Your task to perform on an android device: change the clock display to digital Image 0: 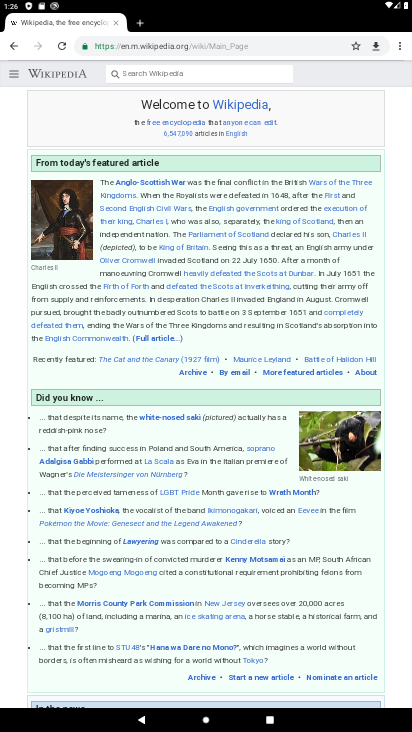
Step 0: press home button
Your task to perform on an android device: change the clock display to digital Image 1: 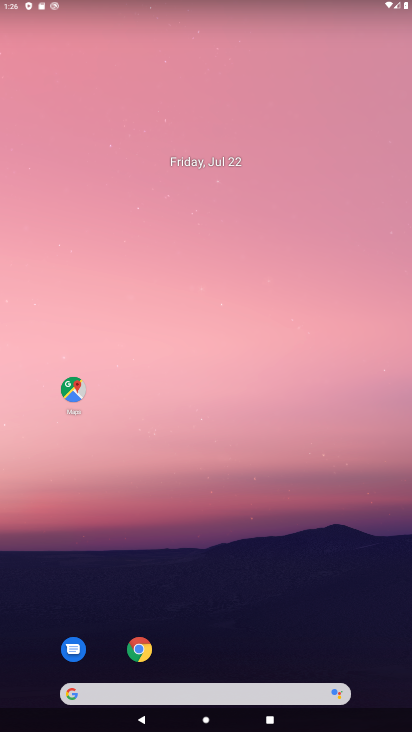
Step 1: drag from (266, 604) to (246, 174)
Your task to perform on an android device: change the clock display to digital Image 2: 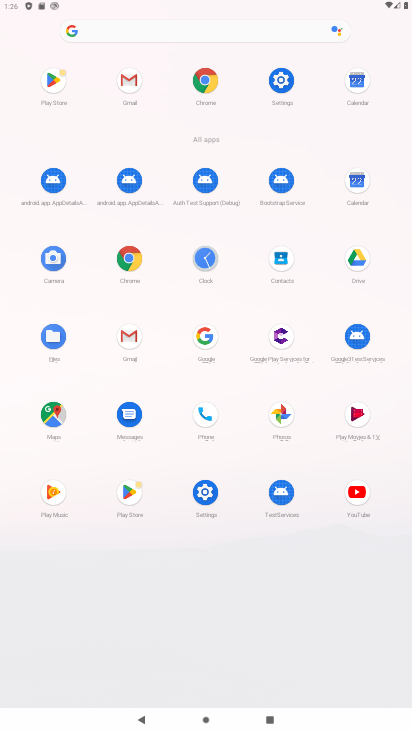
Step 2: click (205, 253)
Your task to perform on an android device: change the clock display to digital Image 3: 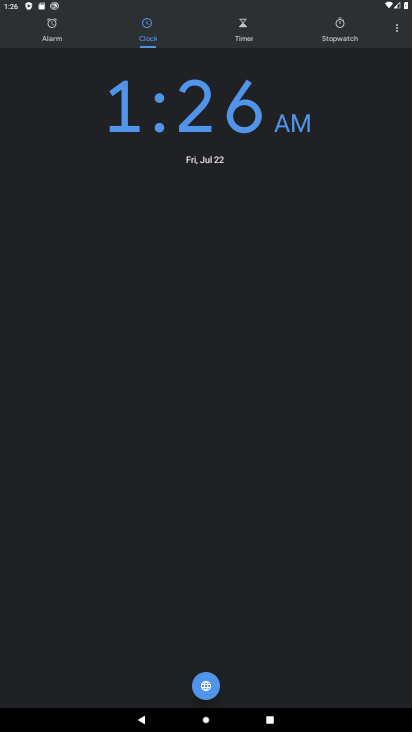
Step 3: click (404, 31)
Your task to perform on an android device: change the clock display to digital Image 4: 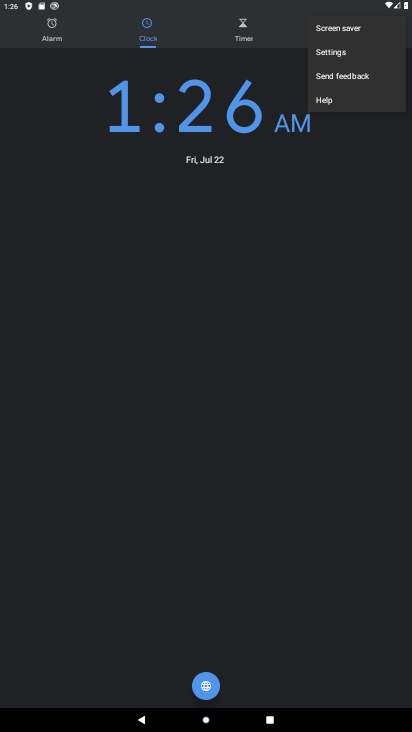
Step 4: click (334, 49)
Your task to perform on an android device: change the clock display to digital Image 5: 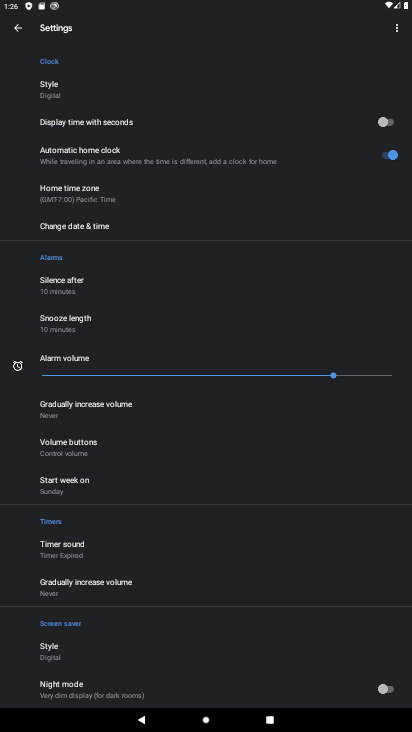
Step 5: click (197, 79)
Your task to perform on an android device: change the clock display to digital Image 6: 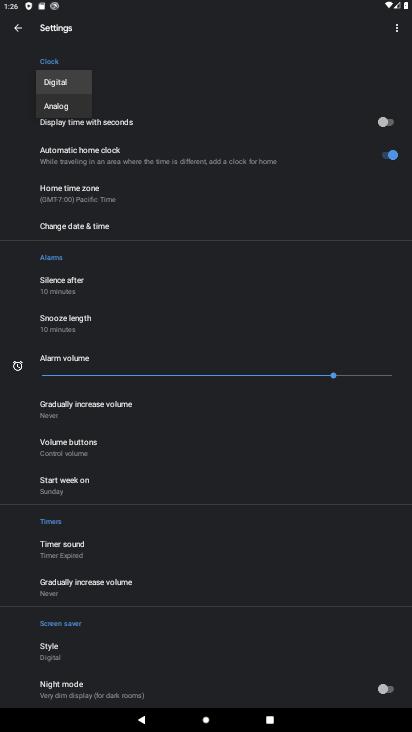
Step 6: task complete